Your task to perform on an android device: turn on priority inbox in the gmail app Image 0: 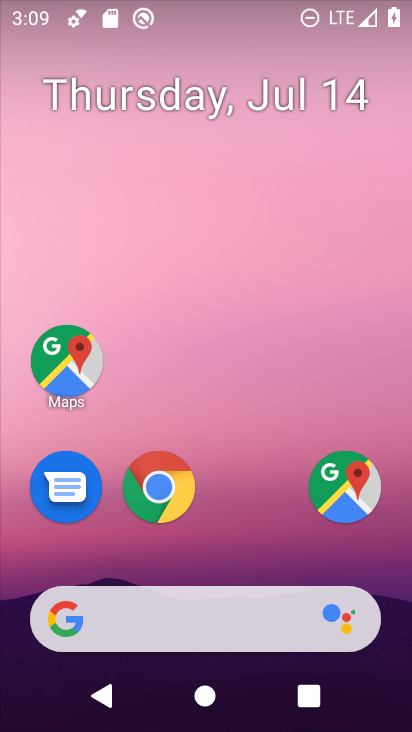
Step 0: drag from (259, 536) to (284, 167)
Your task to perform on an android device: turn on priority inbox in the gmail app Image 1: 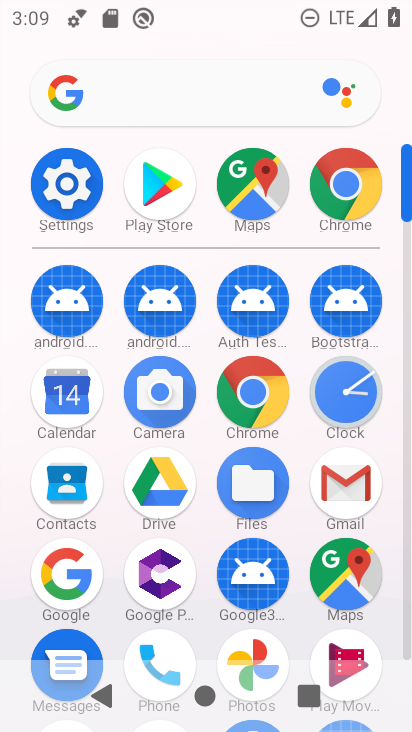
Step 1: click (354, 488)
Your task to perform on an android device: turn on priority inbox in the gmail app Image 2: 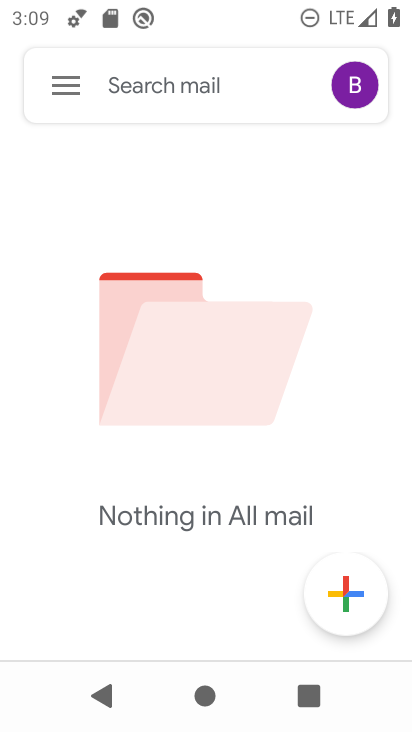
Step 2: click (63, 90)
Your task to perform on an android device: turn on priority inbox in the gmail app Image 3: 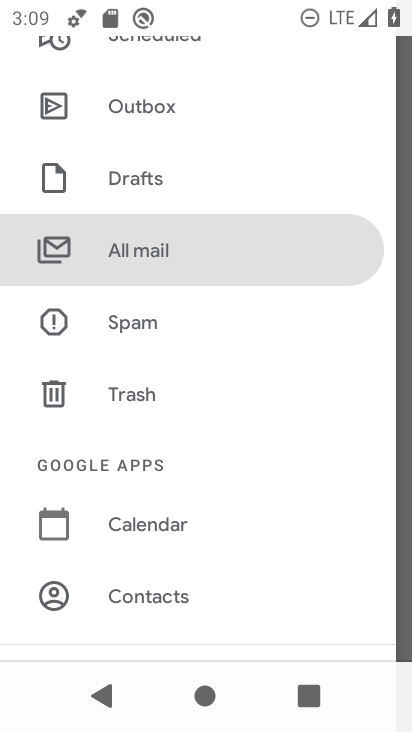
Step 3: drag from (289, 231) to (283, 353)
Your task to perform on an android device: turn on priority inbox in the gmail app Image 4: 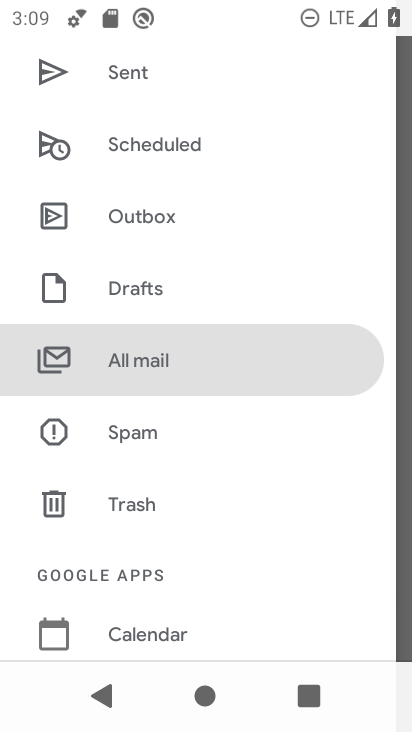
Step 4: drag from (284, 228) to (289, 360)
Your task to perform on an android device: turn on priority inbox in the gmail app Image 5: 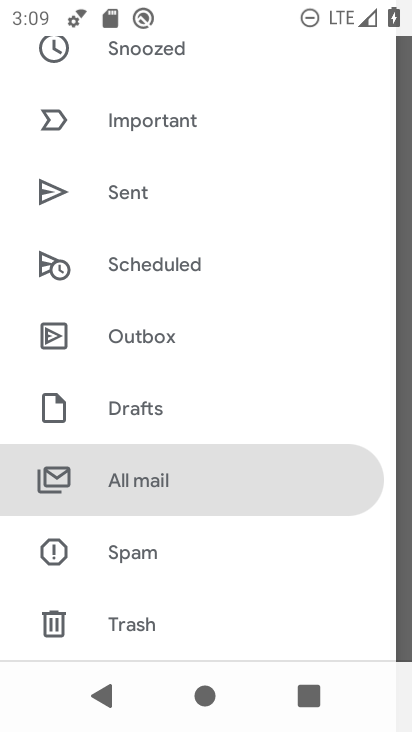
Step 5: drag from (304, 223) to (309, 411)
Your task to perform on an android device: turn on priority inbox in the gmail app Image 6: 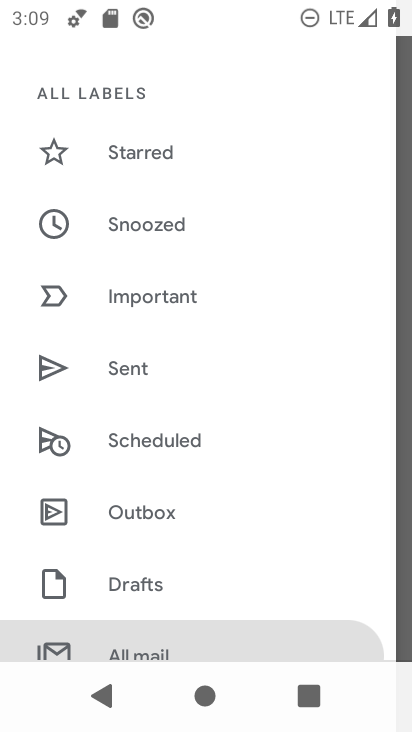
Step 6: drag from (313, 451) to (313, 387)
Your task to perform on an android device: turn on priority inbox in the gmail app Image 7: 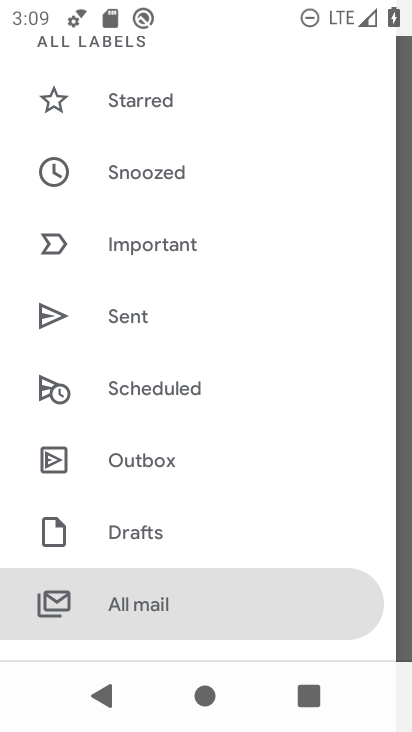
Step 7: drag from (304, 503) to (323, 378)
Your task to perform on an android device: turn on priority inbox in the gmail app Image 8: 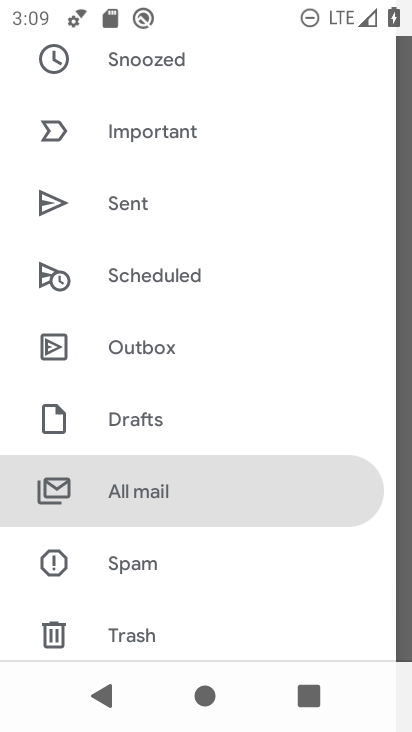
Step 8: drag from (302, 582) to (315, 421)
Your task to perform on an android device: turn on priority inbox in the gmail app Image 9: 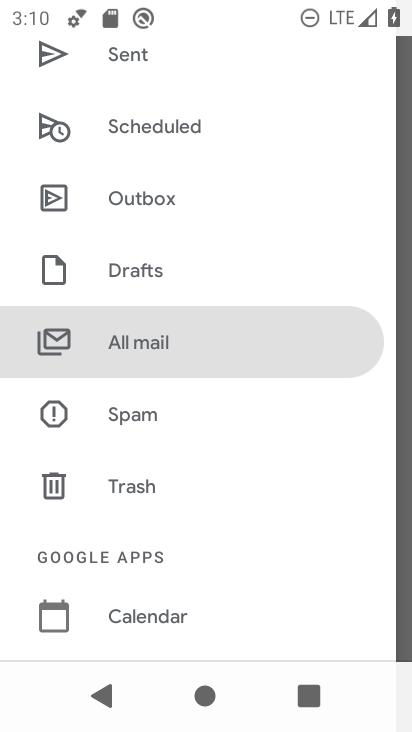
Step 9: drag from (289, 565) to (304, 448)
Your task to perform on an android device: turn on priority inbox in the gmail app Image 10: 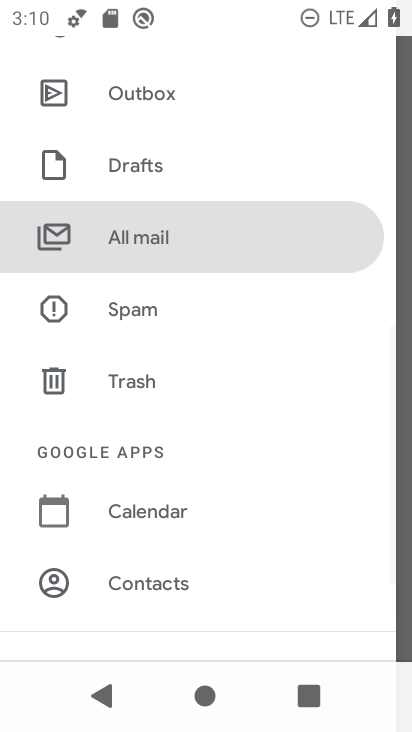
Step 10: drag from (281, 574) to (289, 462)
Your task to perform on an android device: turn on priority inbox in the gmail app Image 11: 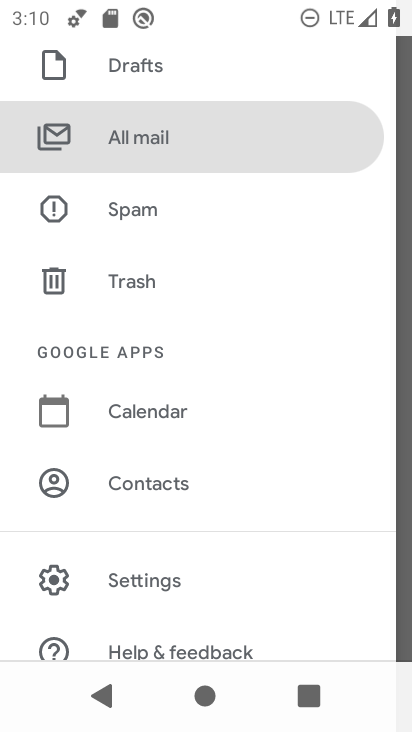
Step 11: click (233, 574)
Your task to perform on an android device: turn on priority inbox in the gmail app Image 12: 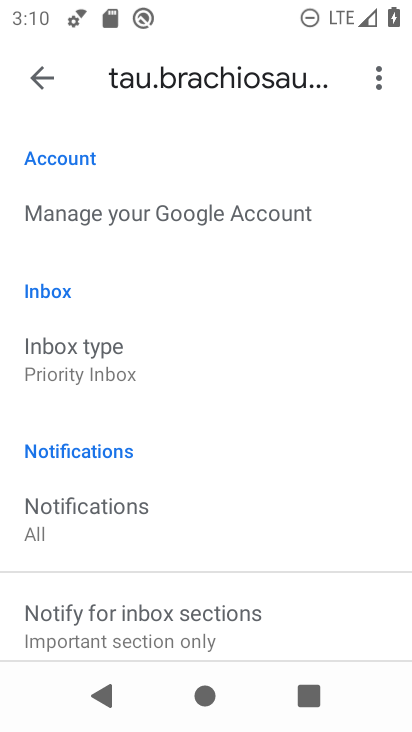
Step 12: drag from (330, 297) to (328, 445)
Your task to perform on an android device: turn on priority inbox in the gmail app Image 13: 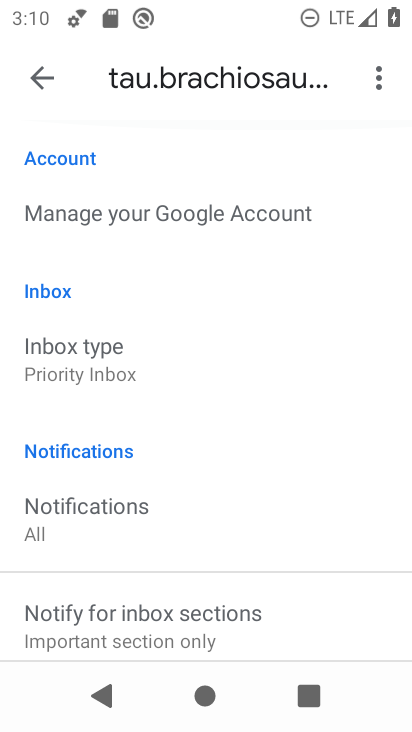
Step 13: drag from (299, 571) to (305, 397)
Your task to perform on an android device: turn on priority inbox in the gmail app Image 14: 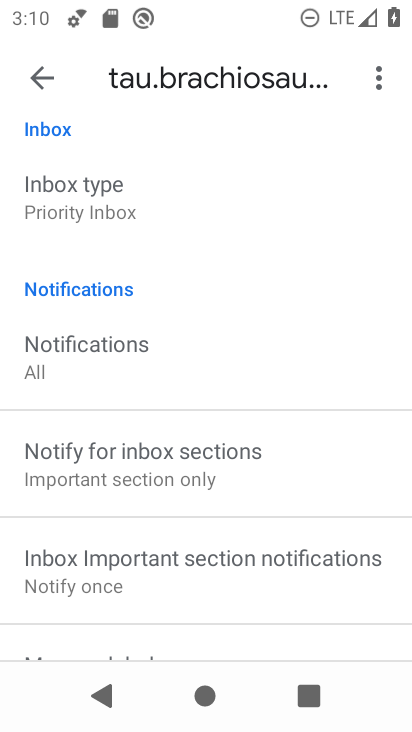
Step 14: click (124, 196)
Your task to perform on an android device: turn on priority inbox in the gmail app Image 15: 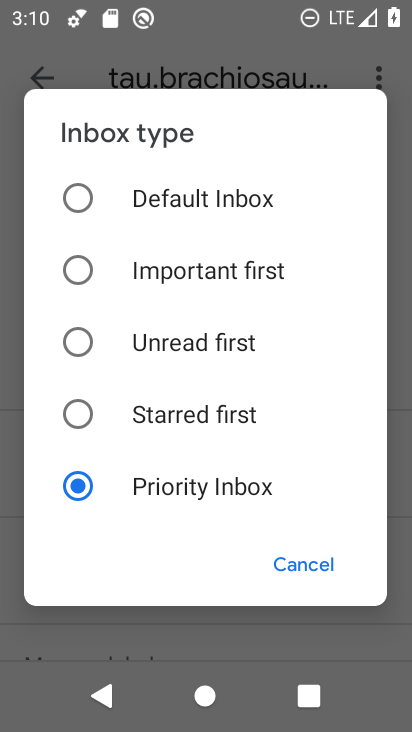
Step 15: task complete